Your task to perform on an android device: Go to battery settings Image 0: 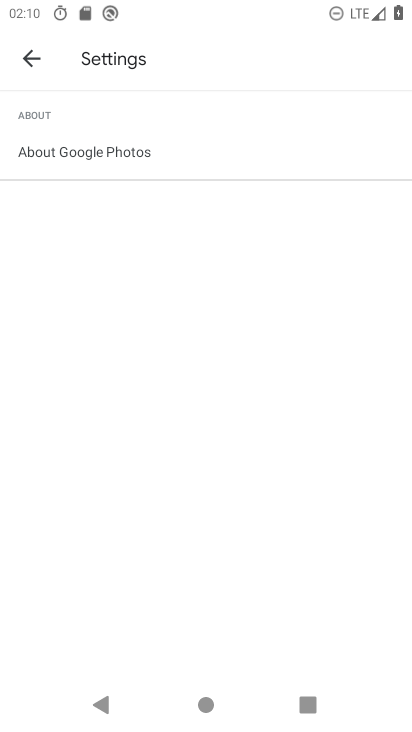
Step 0: press home button
Your task to perform on an android device: Go to battery settings Image 1: 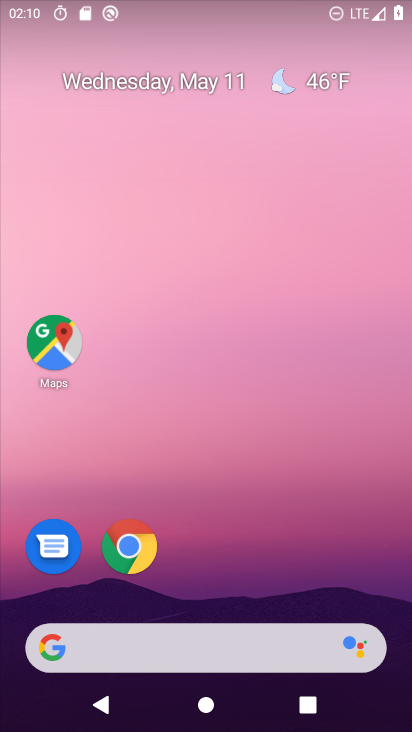
Step 1: drag from (268, 680) to (210, 271)
Your task to perform on an android device: Go to battery settings Image 2: 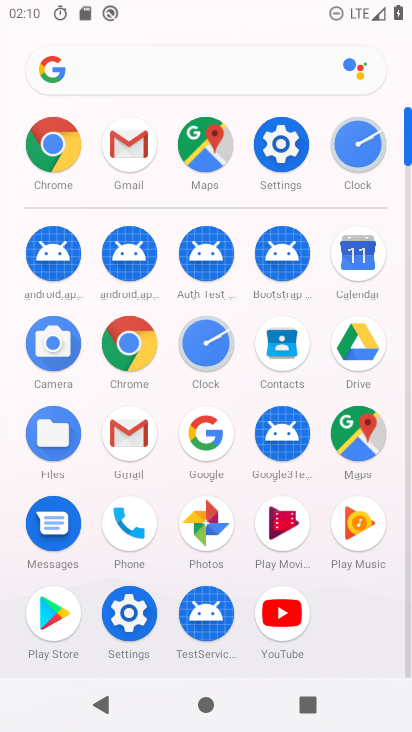
Step 2: click (286, 139)
Your task to perform on an android device: Go to battery settings Image 3: 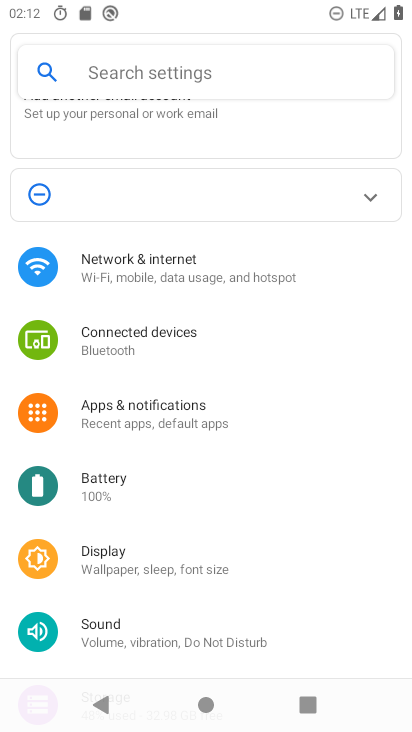
Step 3: click (163, 77)
Your task to perform on an android device: Go to battery settings Image 4: 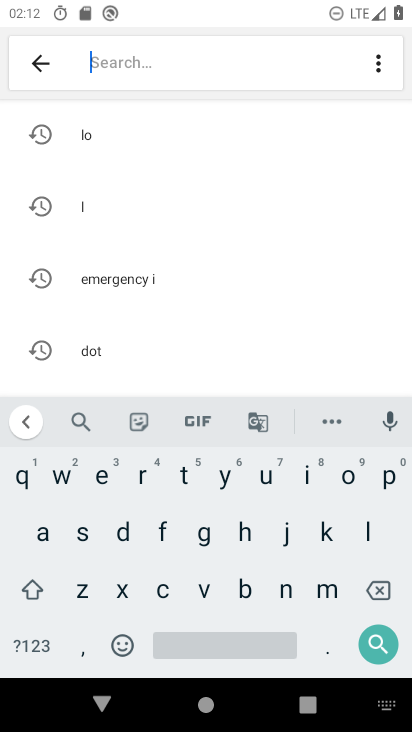
Step 4: click (26, 78)
Your task to perform on an android device: Go to battery settings Image 5: 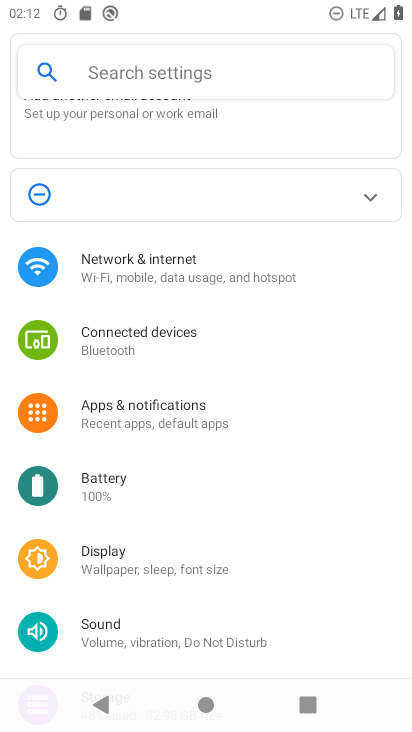
Step 5: click (125, 489)
Your task to perform on an android device: Go to battery settings Image 6: 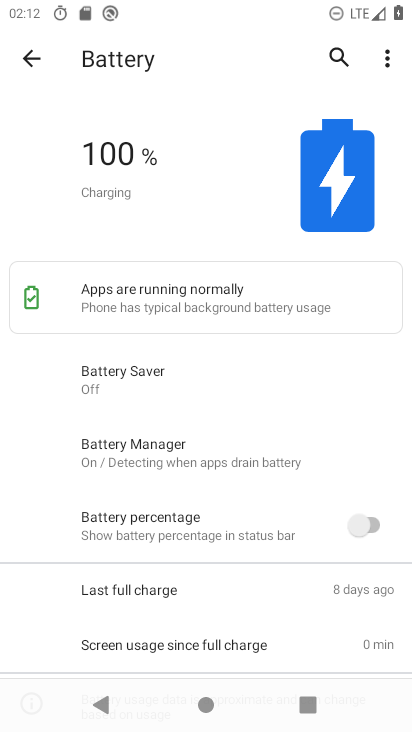
Step 6: task complete